Your task to perform on an android device: What is the news today? Image 0: 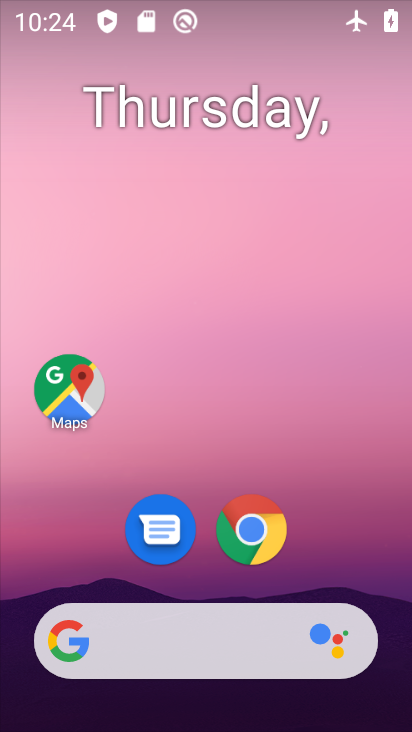
Step 0: click (165, 639)
Your task to perform on an android device: What is the news today? Image 1: 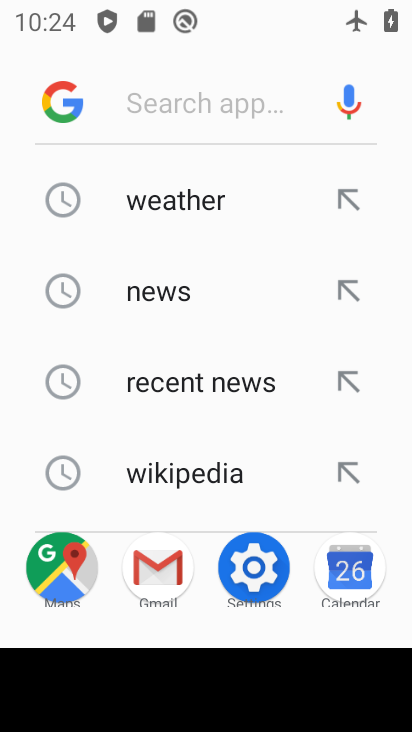
Step 1: type "news today"
Your task to perform on an android device: What is the news today? Image 2: 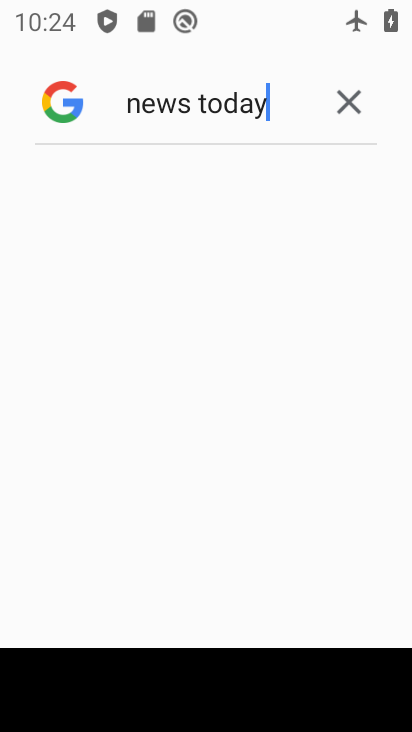
Step 2: task complete